Your task to perform on an android device: Do I have any events this weekend? Image 0: 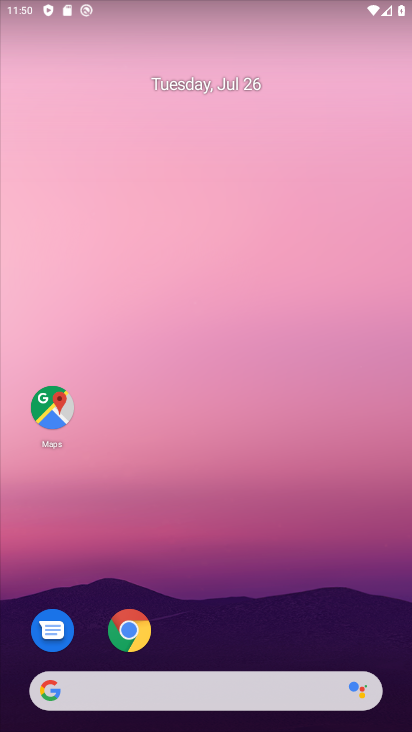
Step 0: drag from (278, 624) to (214, 60)
Your task to perform on an android device: Do I have any events this weekend? Image 1: 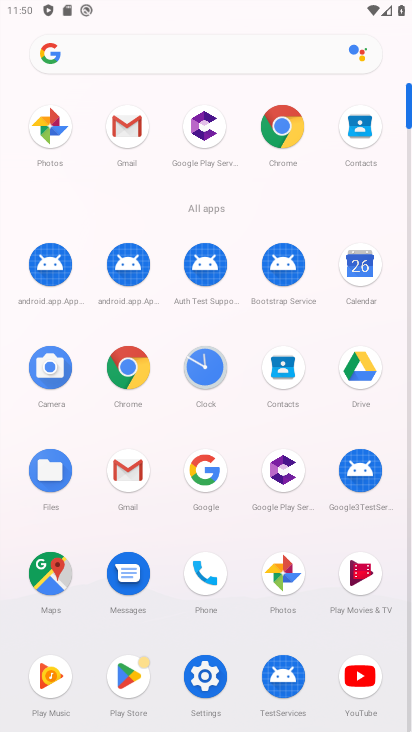
Step 1: click (356, 280)
Your task to perform on an android device: Do I have any events this weekend? Image 2: 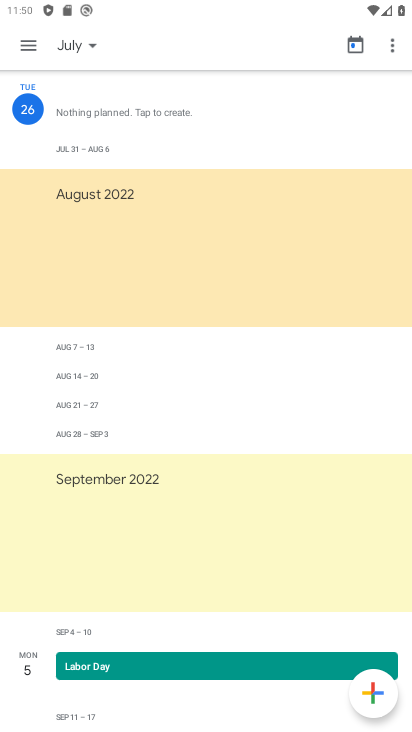
Step 2: click (75, 48)
Your task to perform on an android device: Do I have any events this weekend? Image 3: 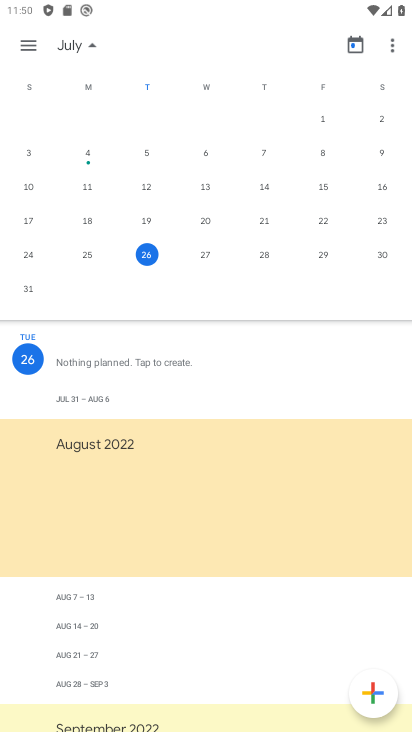
Step 3: click (383, 258)
Your task to perform on an android device: Do I have any events this weekend? Image 4: 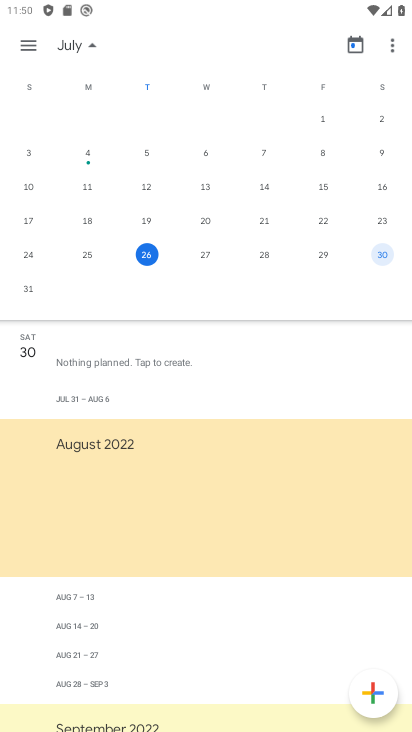
Step 4: task complete